Your task to perform on an android device: toggle priority inbox in the gmail app Image 0: 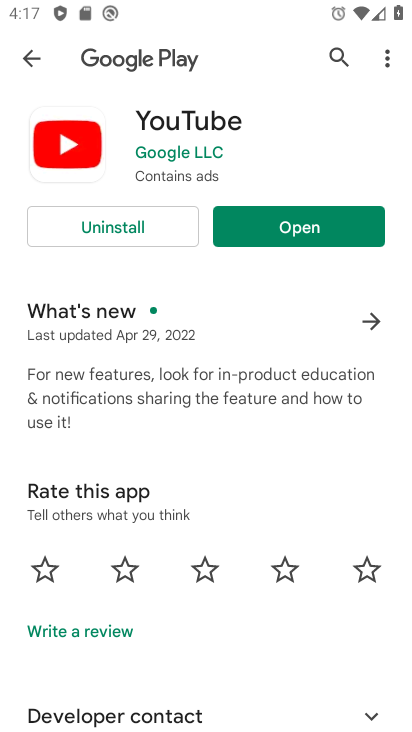
Step 0: press home button
Your task to perform on an android device: toggle priority inbox in the gmail app Image 1: 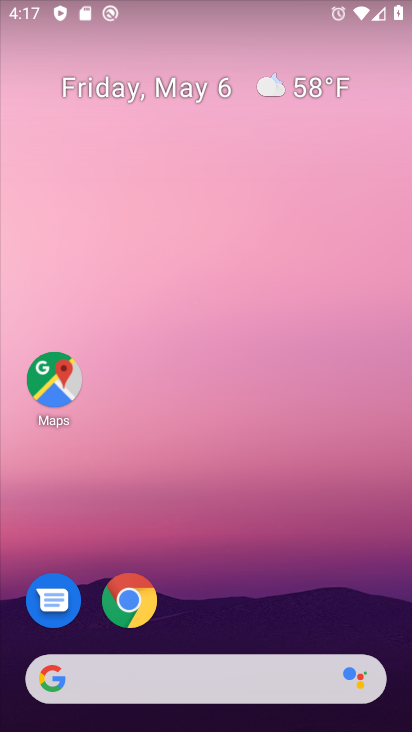
Step 1: drag from (236, 579) to (347, 2)
Your task to perform on an android device: toggle priority inbox in the gmail app Image 2: 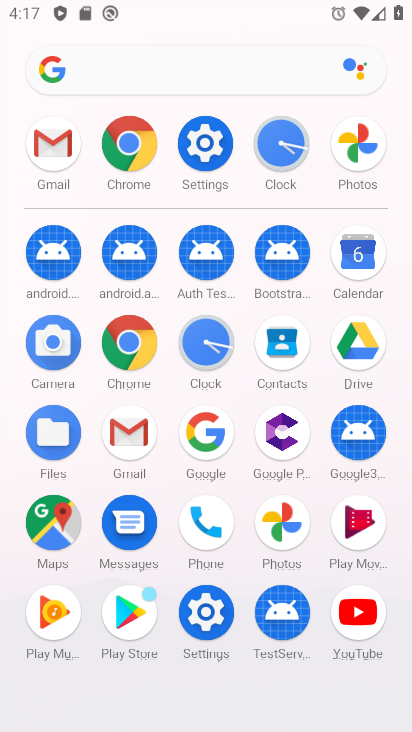
Step 2: click (139, 444)
Your task to perform on an android device: toggle priority inbox in the gmail app Image 3: 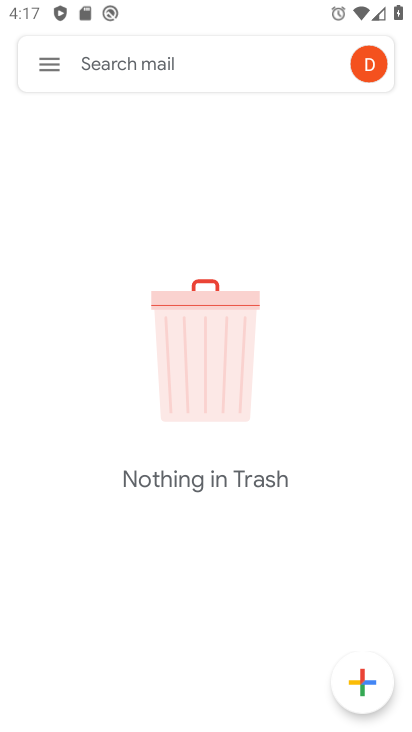
Step 3: click (35, 59)
Your task to perform on an android device: toggle priority inbox in the gmail app Image 4: 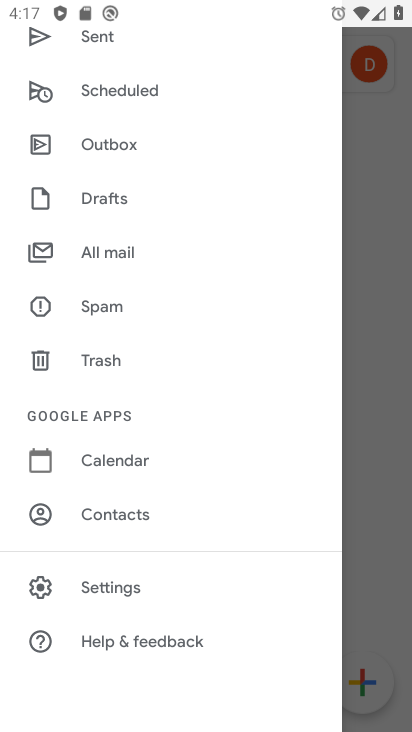
Step 4: click (113, 589)
Your task to perform on an android device: toggle priority inbox in the gmail app Image 5: 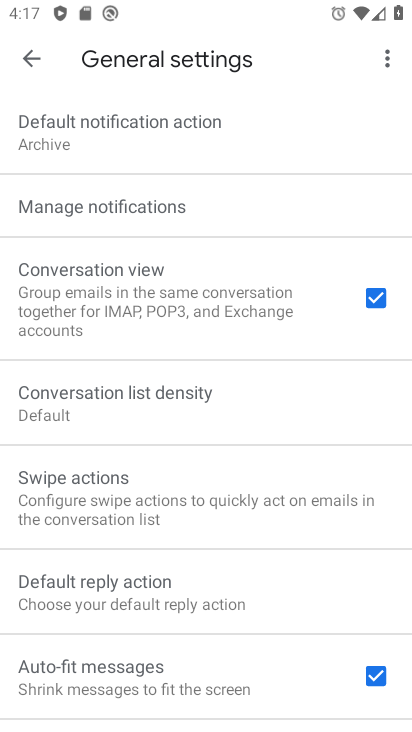
Step 5: click (26, 68)
Your task to perform on an android device: toggle priority inbox in the gmail app Image 6: 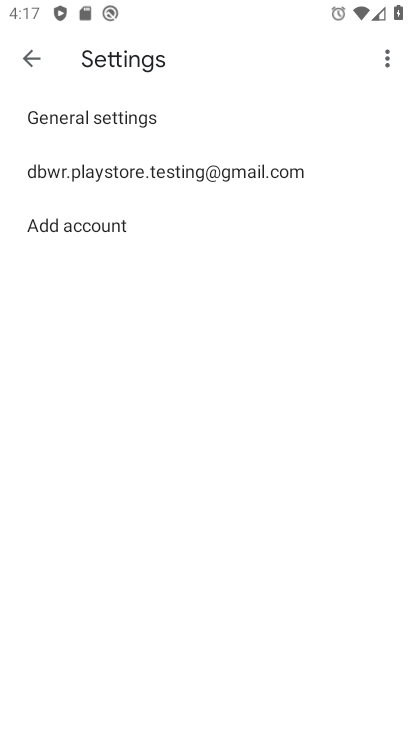
Step 6: click (160, 190)
Your task to perform on an android device: toggle priority inbox in the gmail app Image 7: 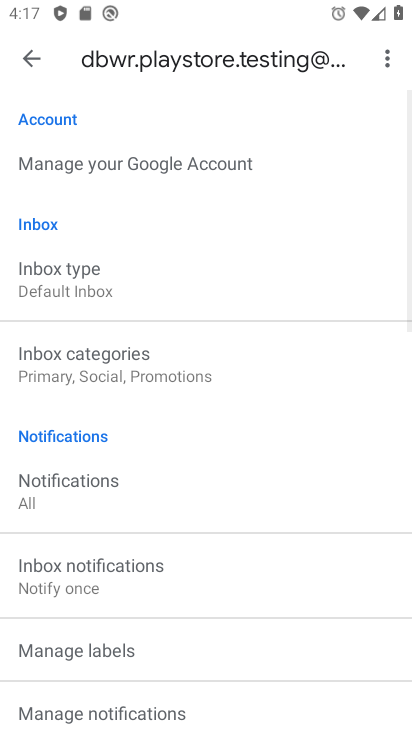
Step 7: click (86, 295)
Your task to perform on an android device: toggle priority inbox in the gmail app Image 8: 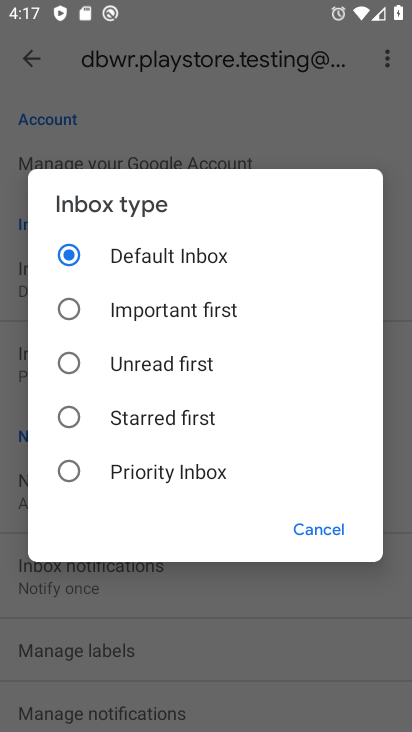
Step 8: click (80, 463)
Your task to perform on an android device: toggle priority inbox in the gmail app Image 9: 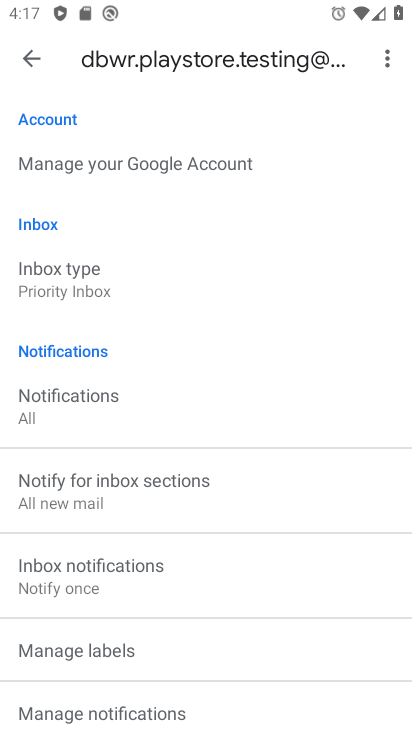
Step 9: task complete